Your task to perform on an android device: Is it going to rain today? Image 0: 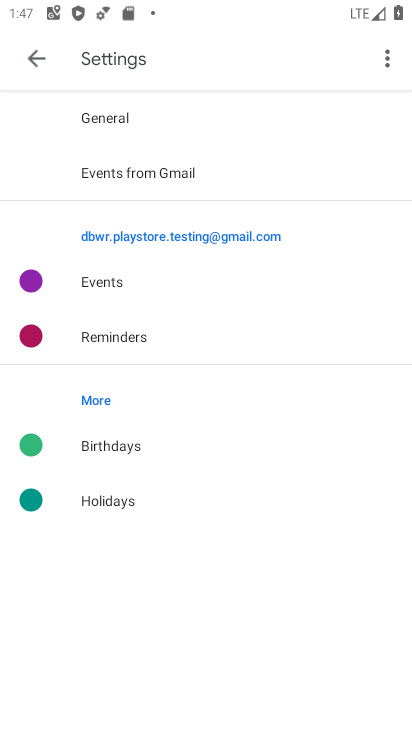
Step 0: press home button
Your task to perform on an android device: Is it going to rain today? Image 1: 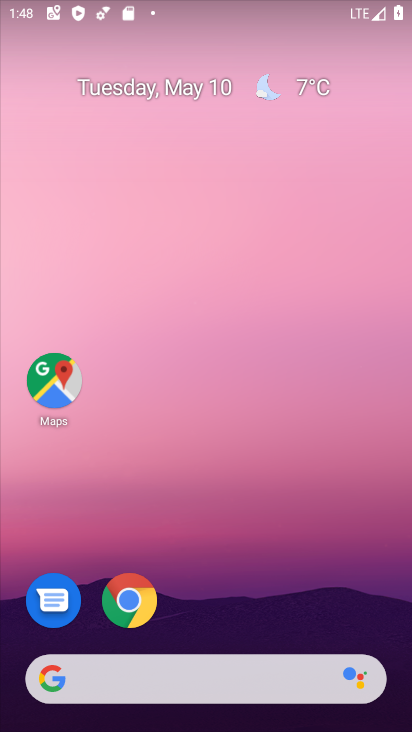
Step 1: click (303, 90)
Your task to perform on an android device: Is it going to rain today? Image 2: 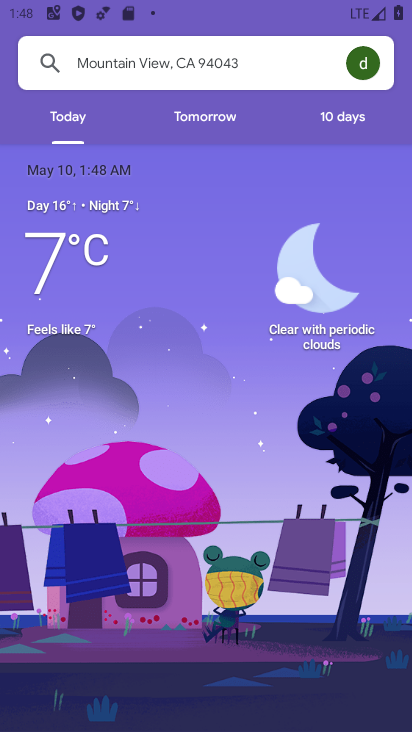
Step 2: task complete